Your task to perform on an android device: Search for sushi restaurants on Maps Image 0: 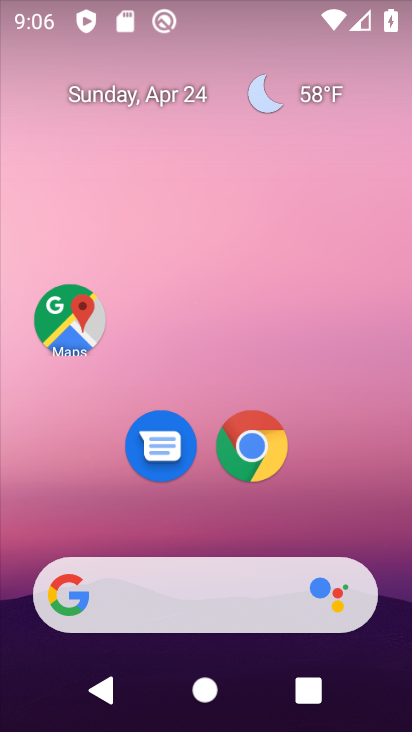
Step 0: press home button
Your task to perform on an android device: Search for sushi restaurants on Maps Image 1: 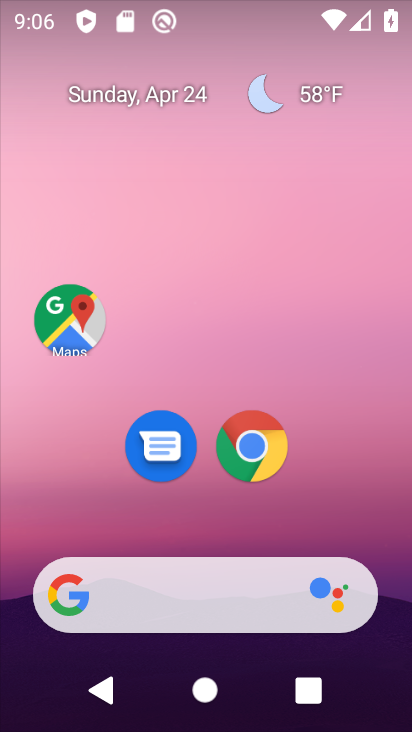
Step 1: drag from (168, 597) to (276, 100)
Your task to perform on an android device: Search for sushi restaurants on Maps Image 2: 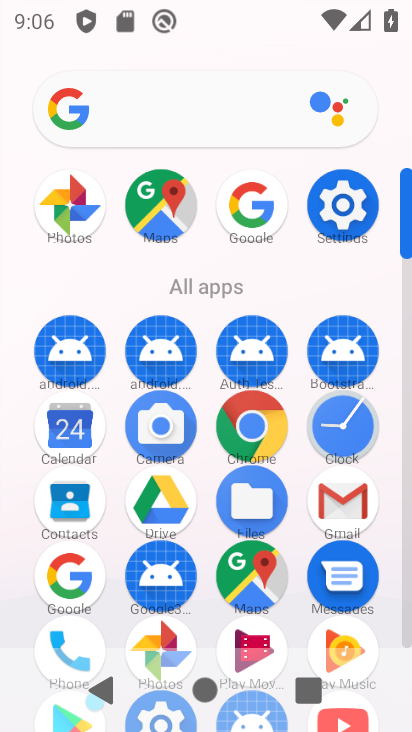
Step 2: click (165, 225)
Your task to perform on an android device: Search for sushi restaurants on Maps Image 3: 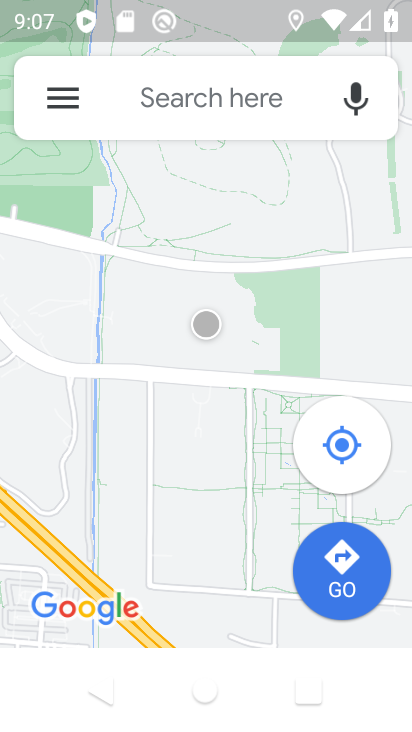
Step 3: click (196, 101)
Your task to perform on an android device: Search for sushi restaurants on Maps Image 4: 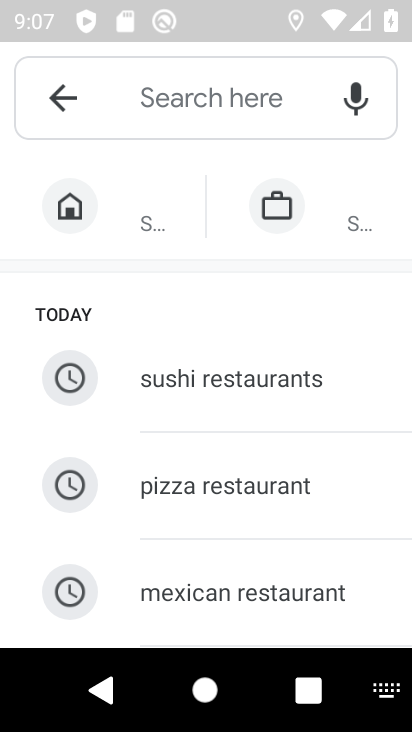
Step 4: click (231, 368)
Your task to perform on an android device: Search for sushi restaurants on Maps Image 5: 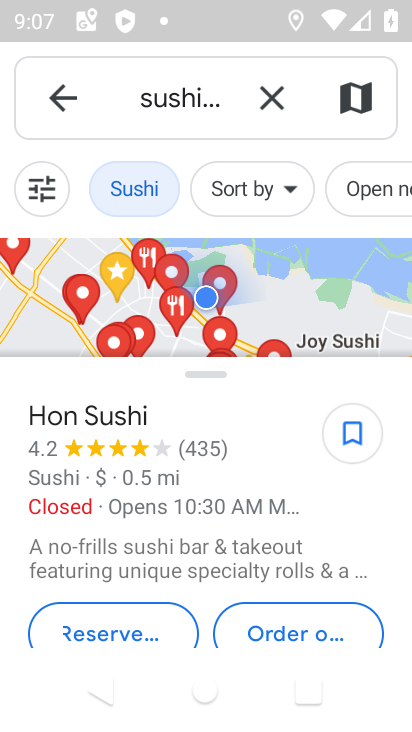
Step 5: drag from (158, 550) to (342, 154)
Your task to perform on an android device: Search for sushi restaurants on Maps Image 6: 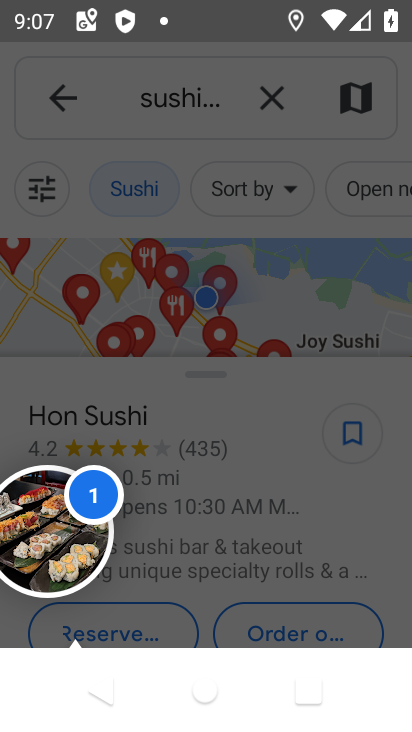
Step 6: drag from (235, 499) to (314, 119)
Your task to perform on an android device: Search for sushi restaurants on Maps Image 7: 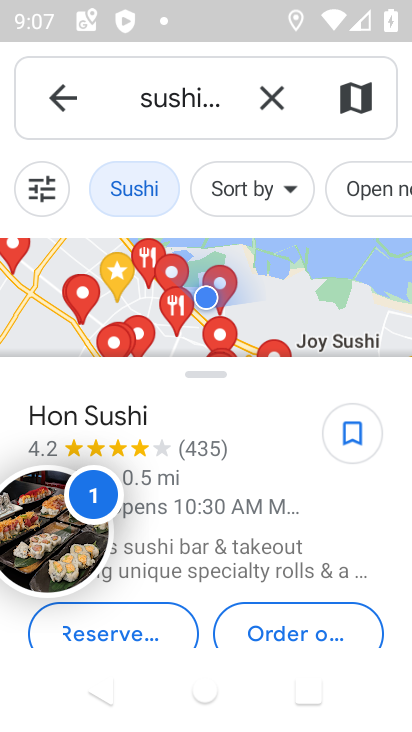
Step 7: drag from (60, 511) to (173, 721)
Your task to perform on an android device: Search for sushi restaurants on Maps Image 8: 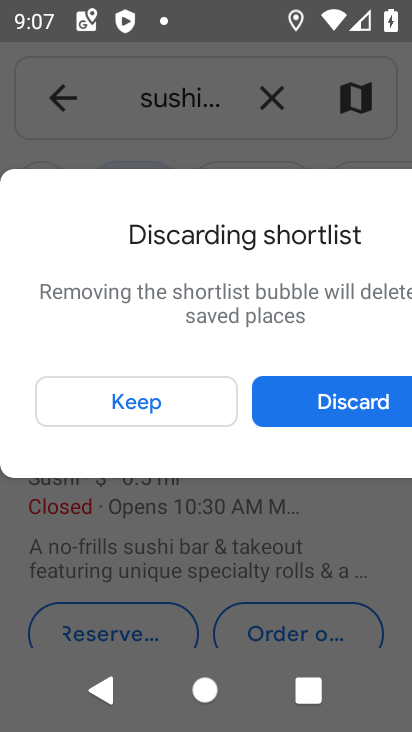
Step 8: click (349, 399)
Your task to perform on an android device: Search for sushi restaurants on Maps Image 9: 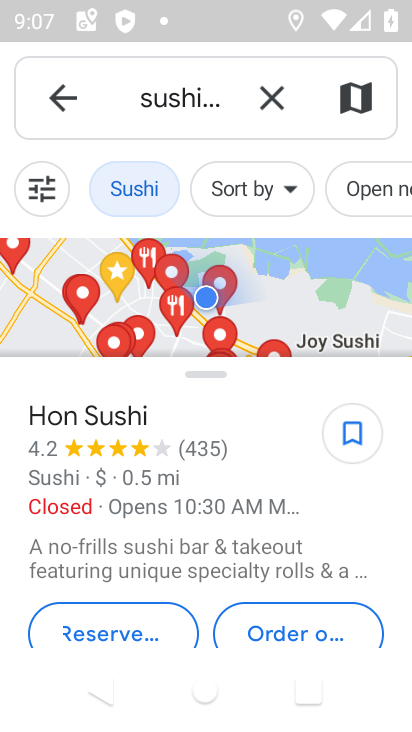
Step 9: task complete